Your task to perform on an android device: Show me the alarms in the clock app Image 0: 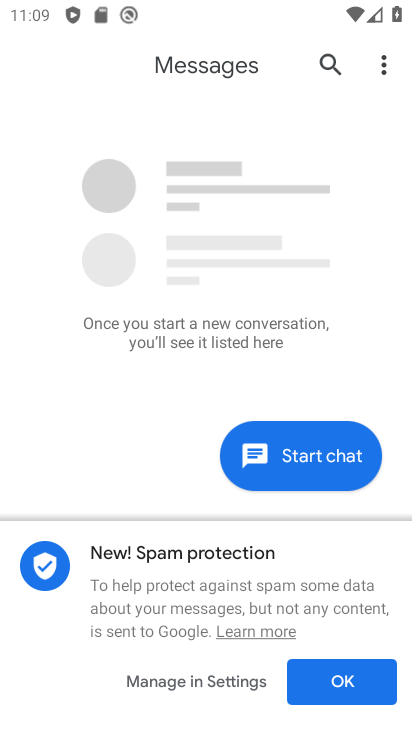
Step 0: press home button
Your task to perform on an android device: Show me the alarms in the clock app Image 1: 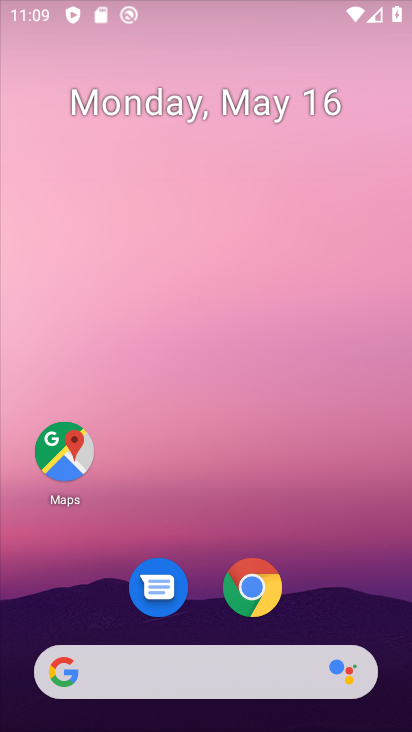
Step 1: drag from (371, 532) to (234, 1)
Your task to perform on an android device: Show me the alarms in the clock app Image 2: 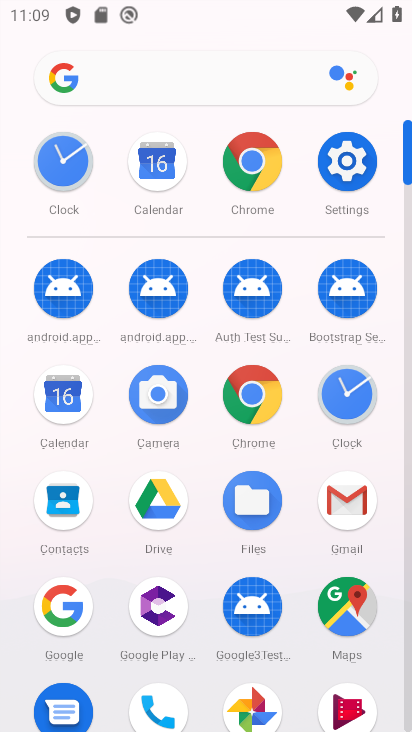
Step 2: click (329, 388)
Your task to perform on an android device: Show me the alarms in the clock app Image 3: 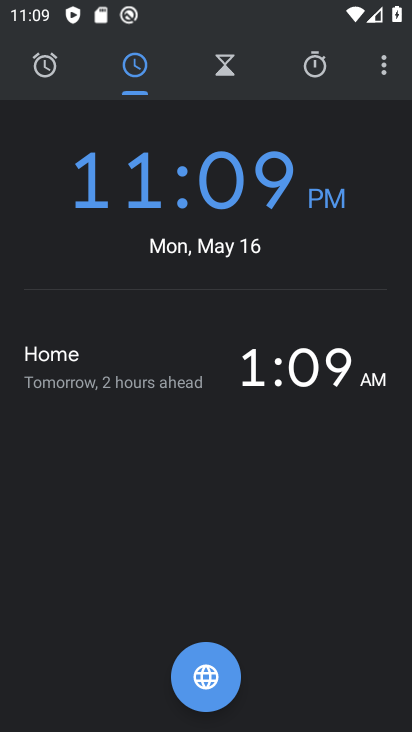
Step 3: click (39, 53)
Your task to perform on an android device: Show me the alarms in the clock app Image 4: 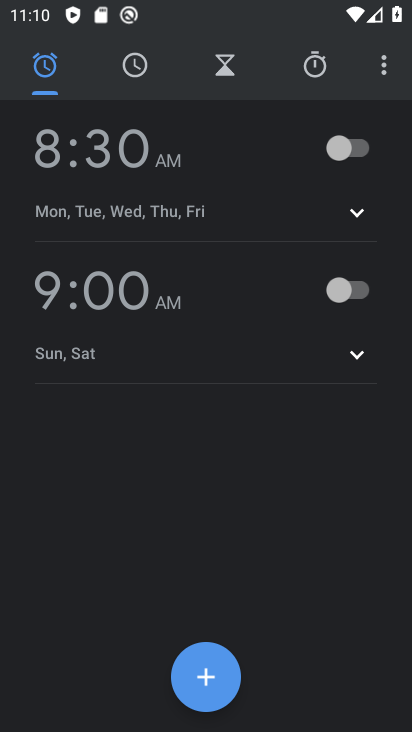
Step 4: task complete